Your task to perform on an android device: Search for bose soundlink mini on amazon.com, select the first entry, and add it to the cart. Image 0: 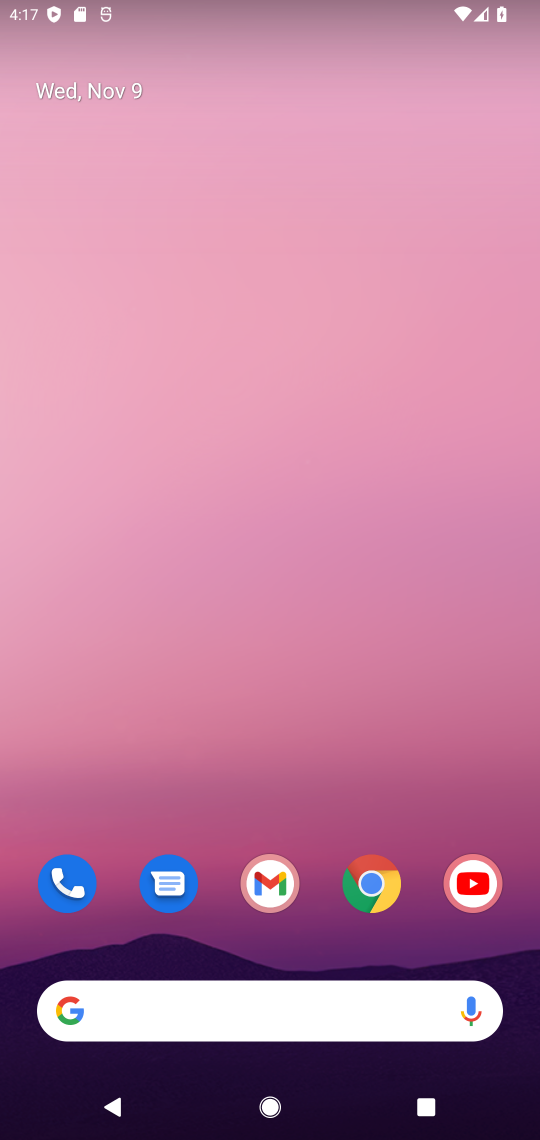
Step 0: click (363, 898)
Your task to perform on an android device: Search for bose soundlink mini on amazon.com, select the first entry, and add it to the cart. Image 1: 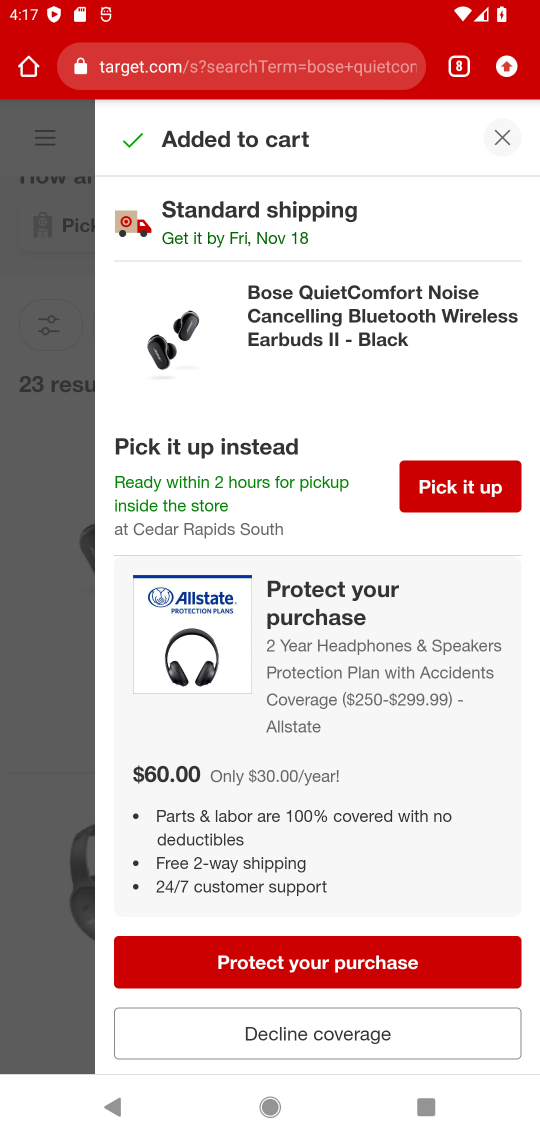
Step 1: click (458, 70)
Your task to perform on an android device: Search for bose soundlink mini on amazon.com, select the first entry, and add it to the cart. Image 2: 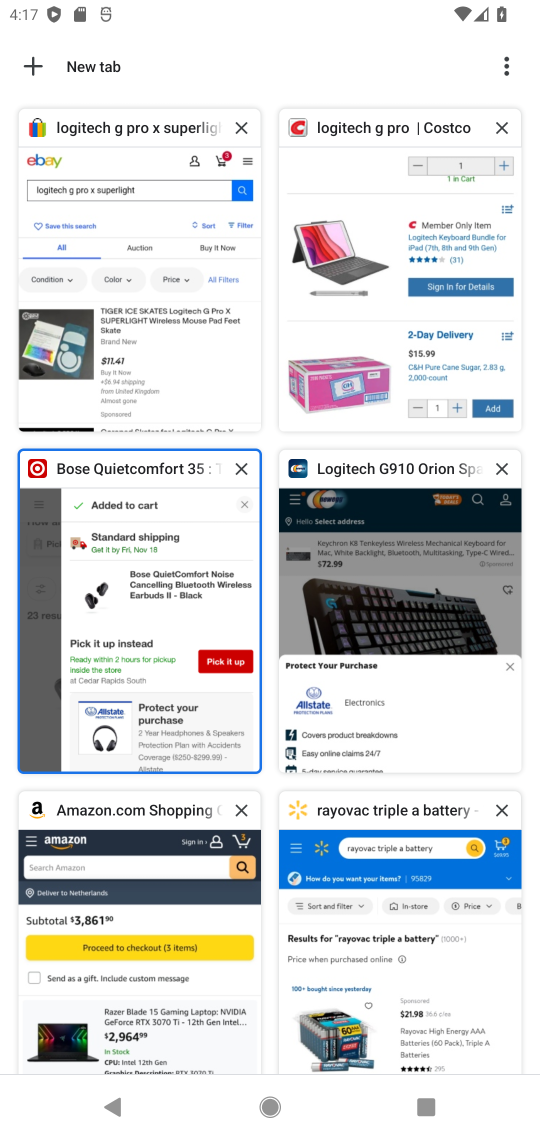
Step 2: click (194, 900)
Your task to perform on an android device: Search for bose soundlink mini on amazon.com, select the first entry, and add it to the cart. Image 3: 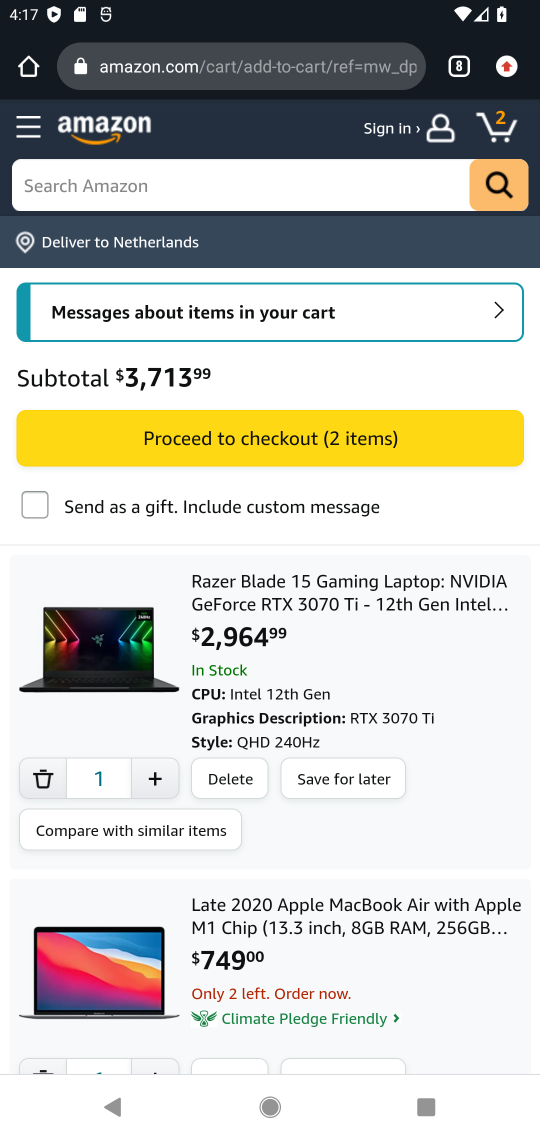
Step 3: click (247, 198)
Your task to perform on an android device: Search for bose soundlink mini on amazon.com, select the first entry, and add it to the cart. Image 4: 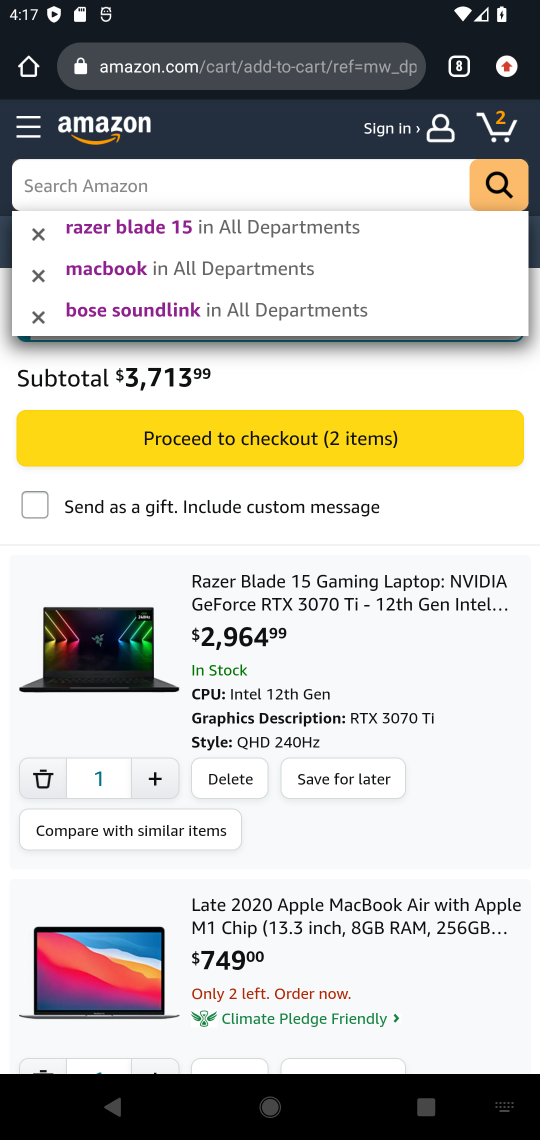
Step 4: type "bose soundlink mini "
Your task to perform on an android device: Search for bose soundlink mini on amazon.com, select the first entry, and add it to the cart. Image 5: 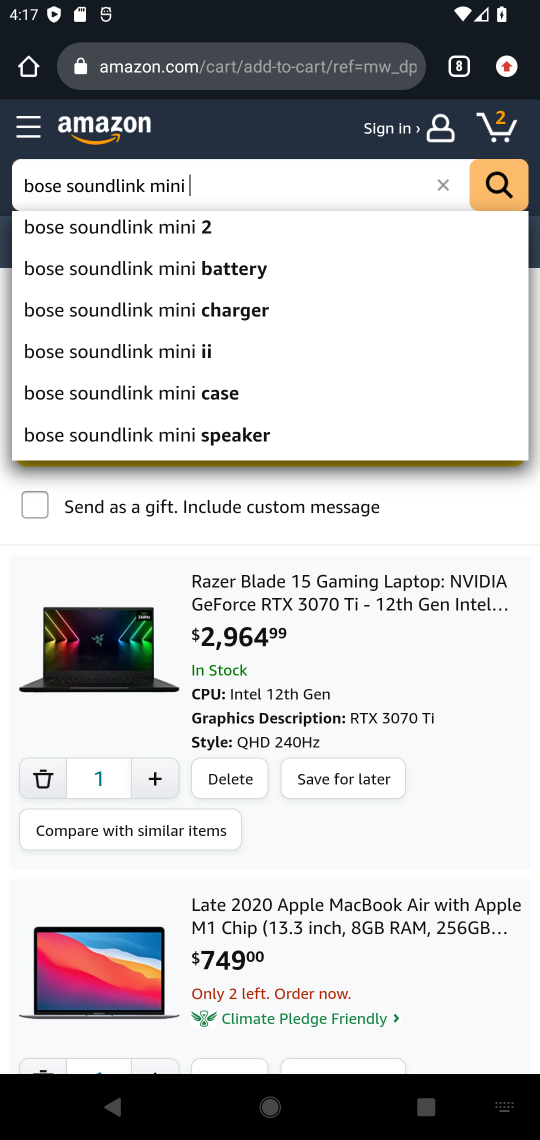
Step 5: click (195, 228)
Your task to perform on an android device: Search for bose soundlink mini on amazon.com, select the first entry, and add it to the cart. Image 6: 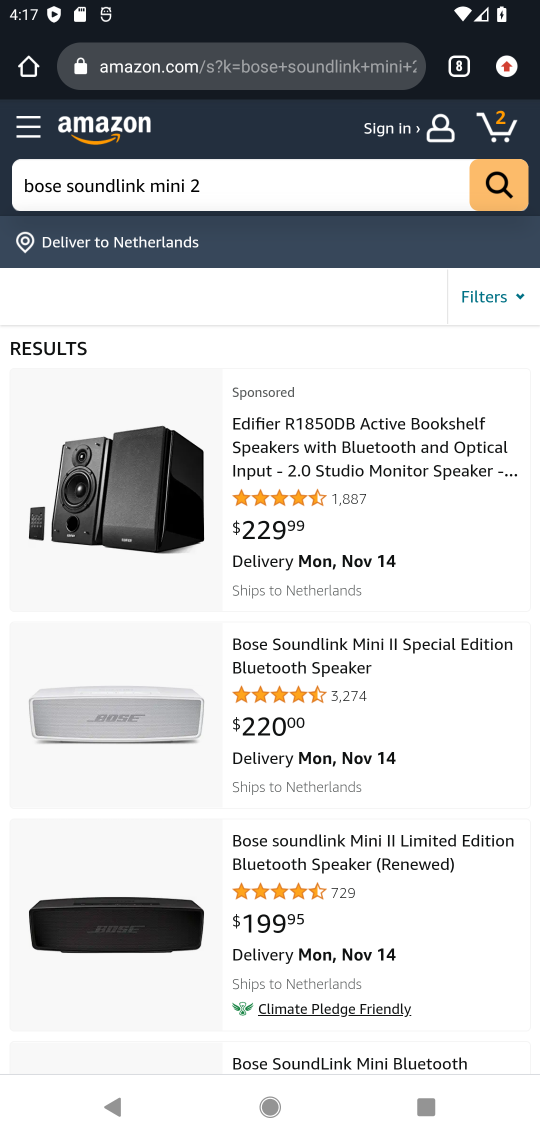
Step 6: click (346, 644)
Your task to perform on an android device: Search for bose soundlink mini on amazon.com, select the first entry, and add it to the cart. Image 7: 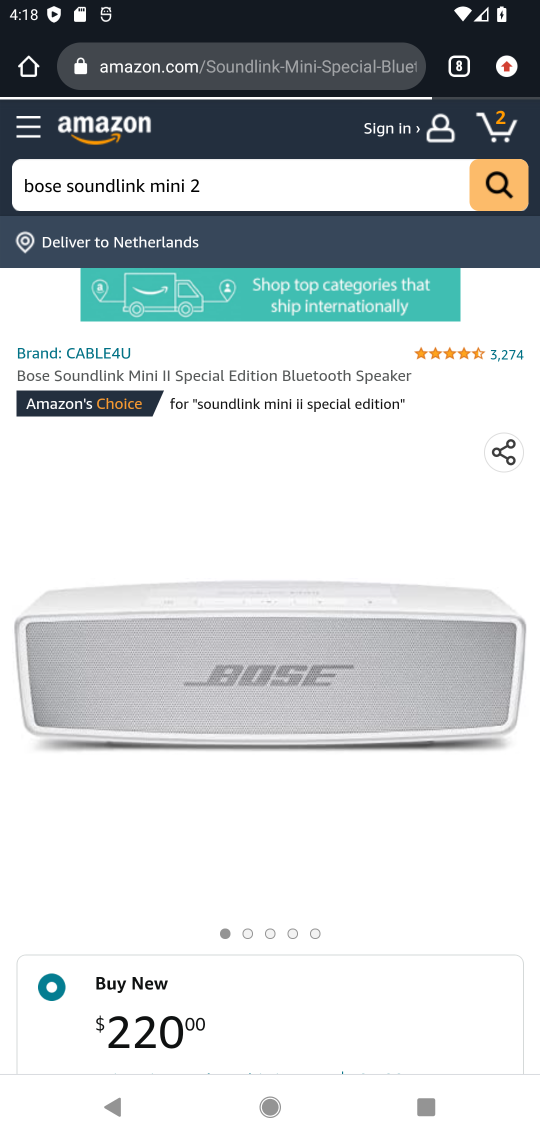
Step 7: drag from (397, 859) to (374, 281)
Your task to perform on an android device: Search for bose soundlink mini on amazon.com, select the first entry, and add it to the cart. Image 8: 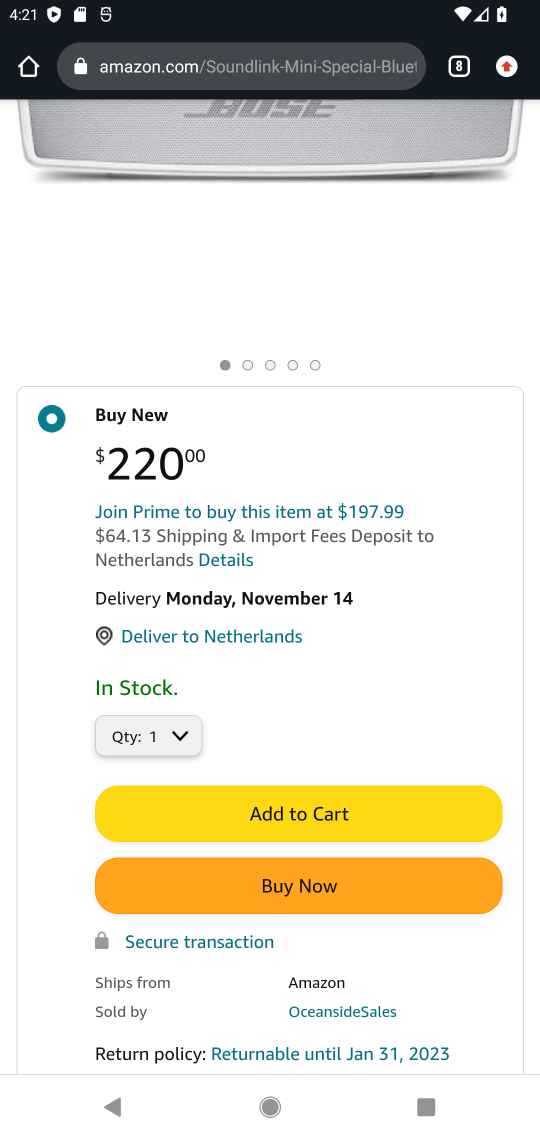
Step 8: click (329, 822)
Your task to perform on an android device: Search for bose soundlink mini on amazon.com, select the first entry, and add it to the cart. Image 9: 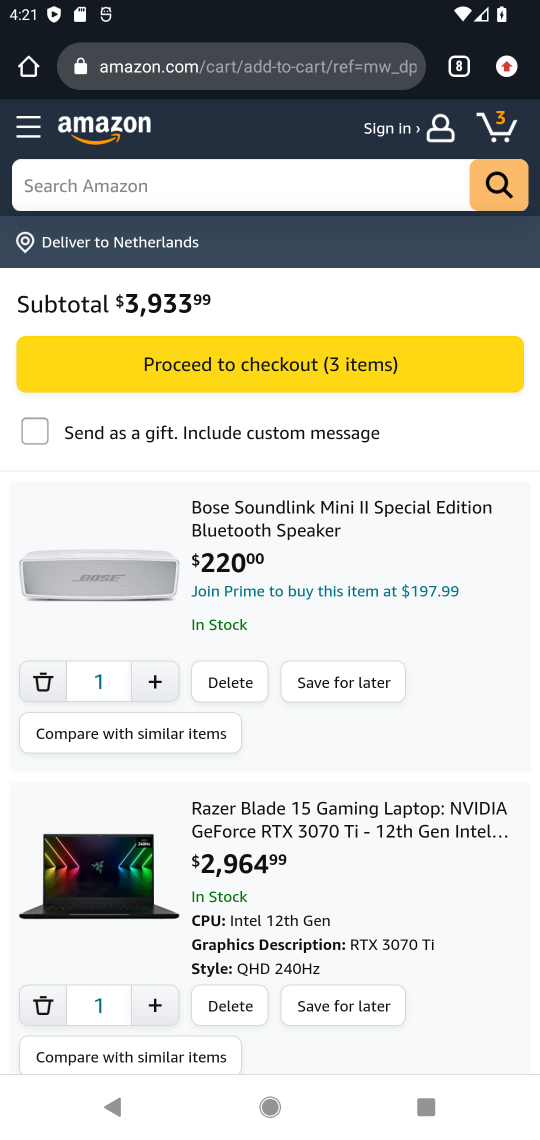
Step 9: task complete